Your task to perform on an android device: toggle pop-ups in chrome Image 0: 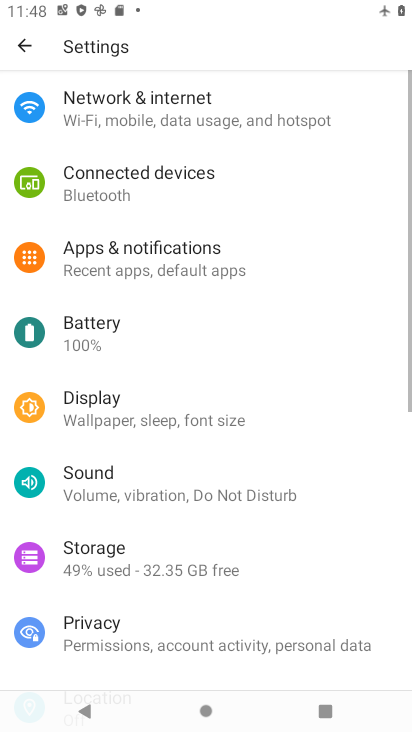
Step 0: press home button
Your task to perform on an android device: toggle pop-ups in chrome Image 1: 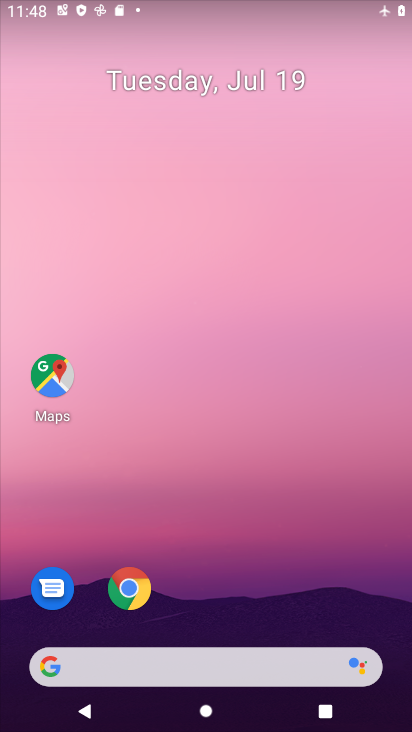
Step 1: drag from (332, 605) to (218, 33)
Your task to perform on an android device: toggle pop-ups in chrome Image 2: 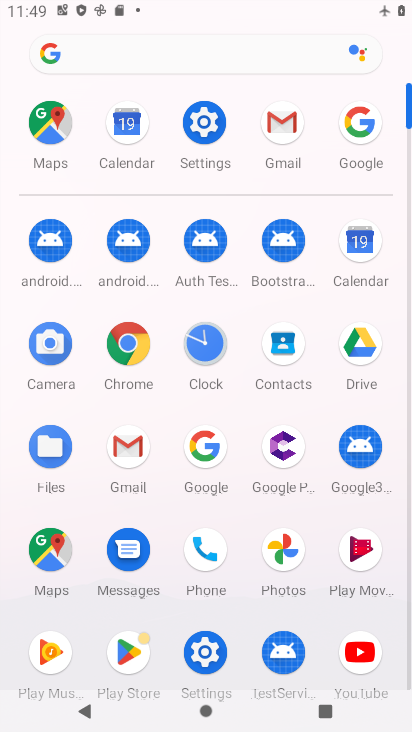
Step 2: click (135, 357)
Your task to perform on an android device: toggle pop-ups in chrome Image 3: 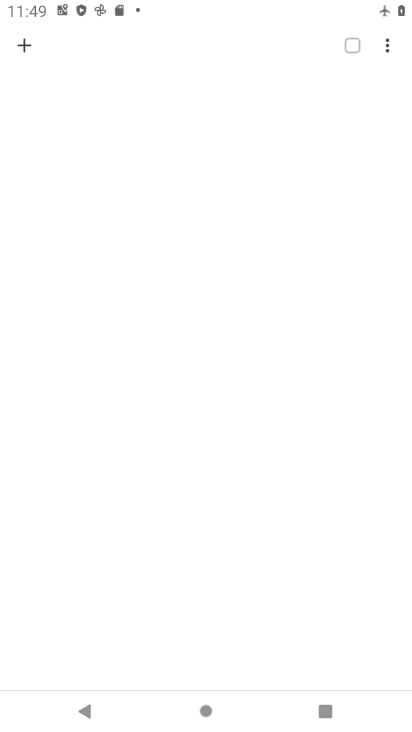
Step 3: click (386, 43)
Your task to perform on an android device: toggle pop-ups in chrome Image 4: 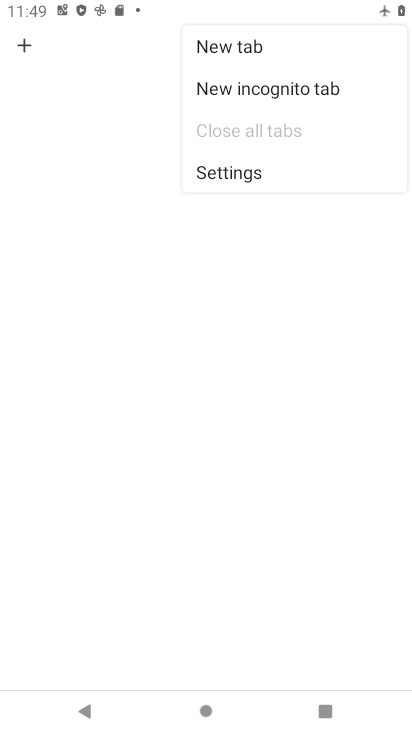
Step 4: click (255, 173)
Your task to perform on an android device: toggle pop-ups in chrome Image 5: 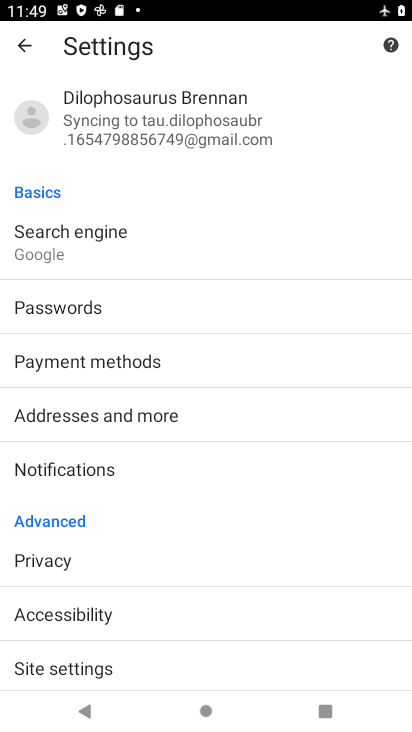
Step 5: click (83, 663)
Your task to perform on an android device: toggle pop-ups in chrome Image 6: 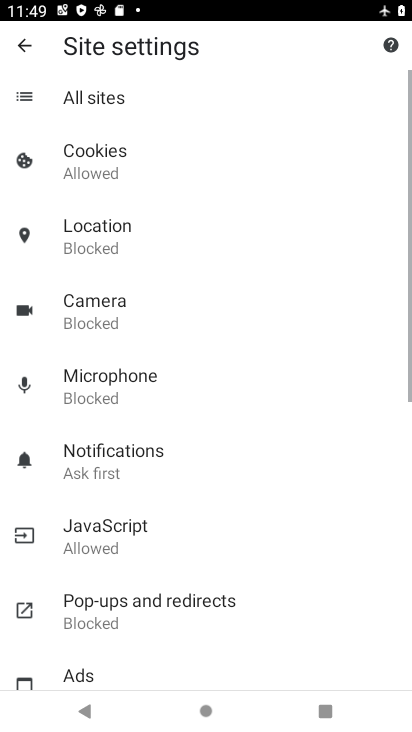
Step 6: click (101, 615)
Your task to perform on an android device: toggle pop-ups in chrome Image 7: 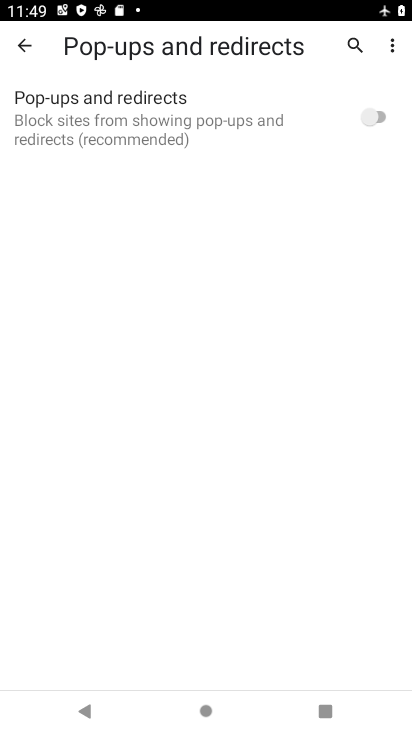
Step 7: click (339, 116)
Your task to perform on an android device: toggle pop-ups in chrome Image 8: 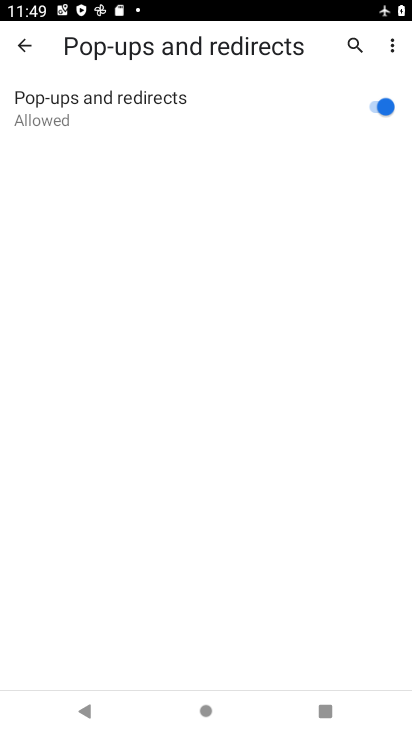
Step 8: task complete